Your task to perform on an android device: find snoozed emails in the gmail app Image 0: 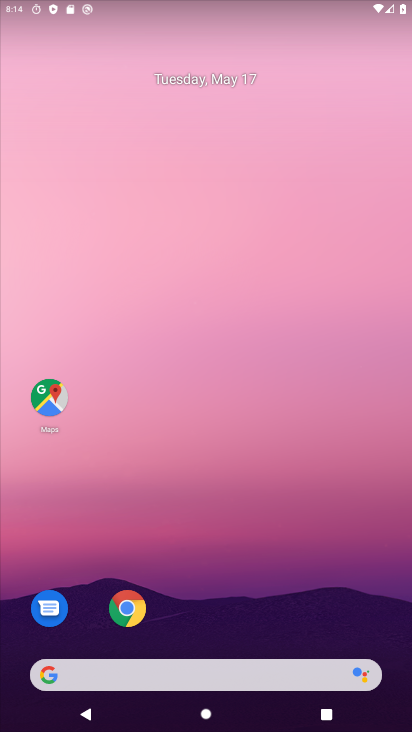
Step 0: drag from (360, 537) to (269, 28)
Your task to perform on an android device: find snoozed emails in the gmail app Image 1: 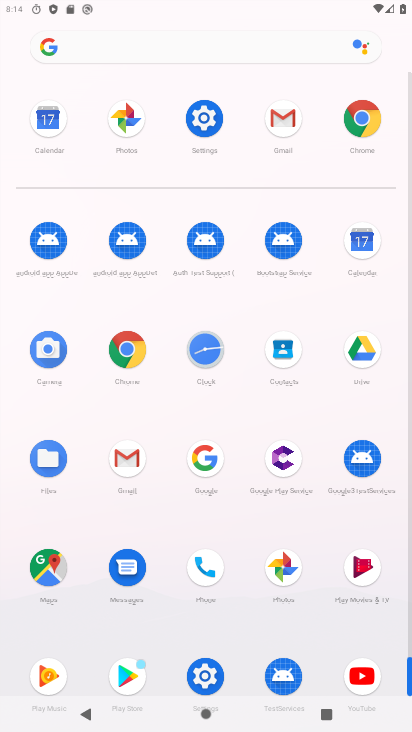
Step 1: click (125, 467)
Your task to perform on an android device: find snoozed emails in the gmail app Image 2: 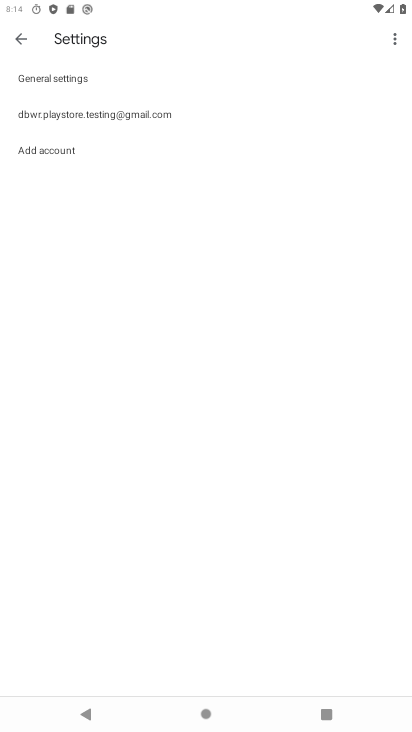
Step 2: click (33, 51)
Your task to perform on an android device: find snoozed emails in the gmail app Image 3: 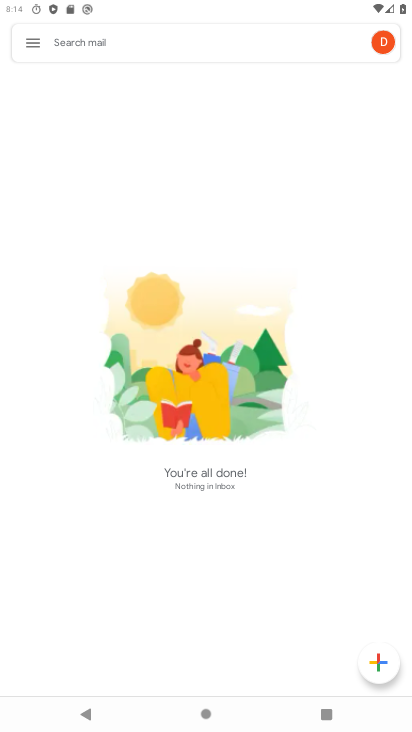
Step 3: click (18, 32)
Your task to perform on an android device: find snoozed emails in the gmail app Image 4: 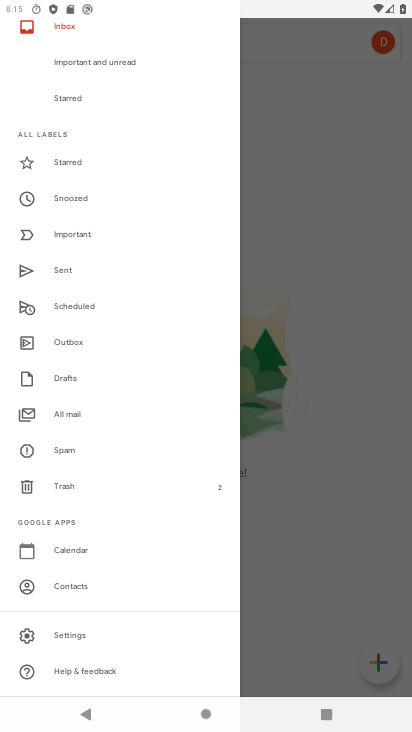
Step 4: click (77, 191)
Your task to perform on an android device: find snoozed emails in the gmail app Image 5: 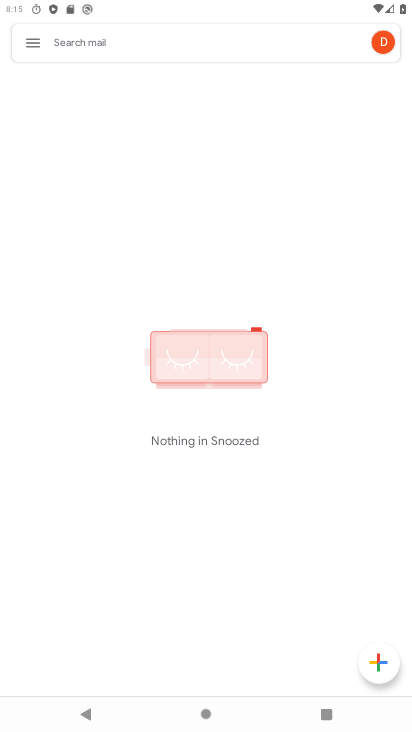
Step 5: task complete